Your task to perform on an android device: open app "Spotify: Music and Podcasts" (install if not already installed) and go to login screen Image 0: 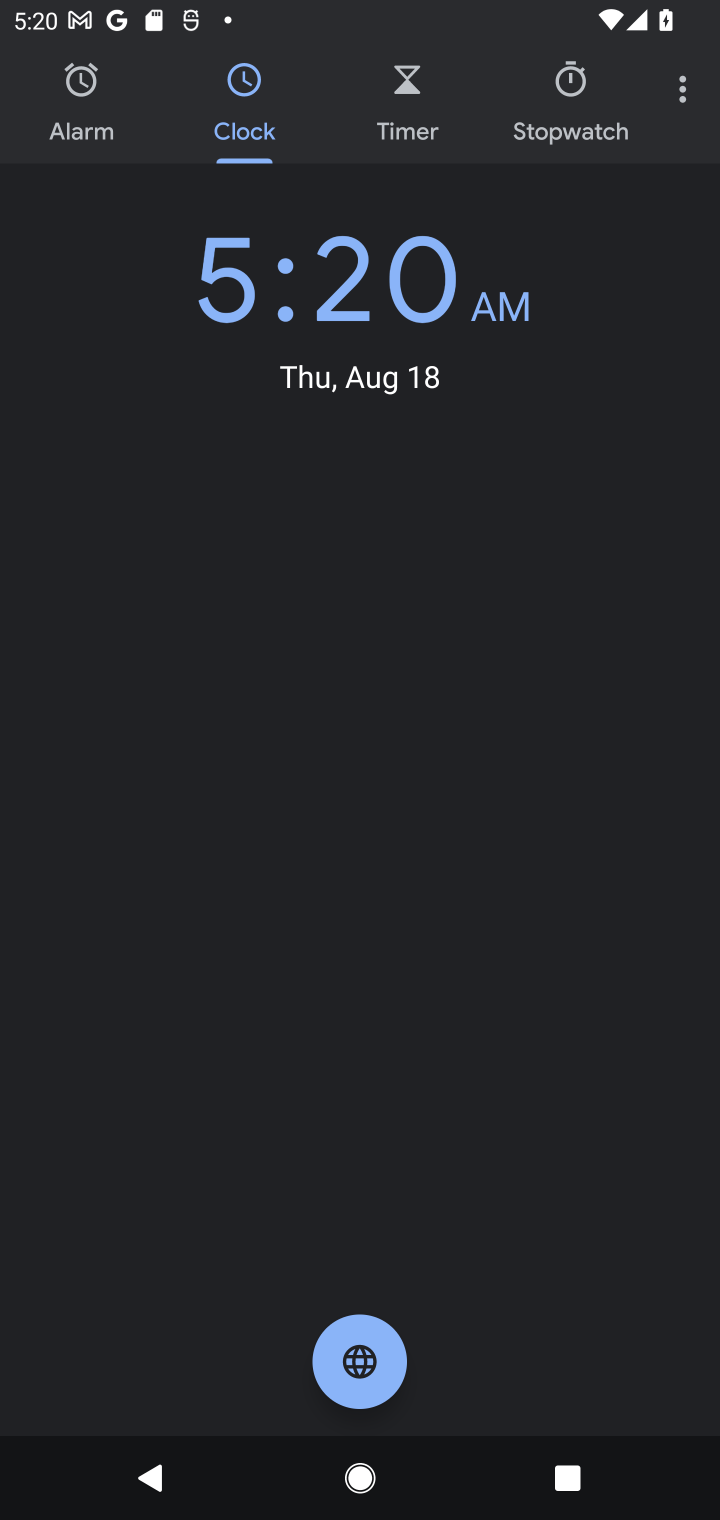
Step 0: press home button
Your task to perform on an android device: open app "Spotify: Music and Podcasts" (install if not already installed) and go to login screen Image 1: 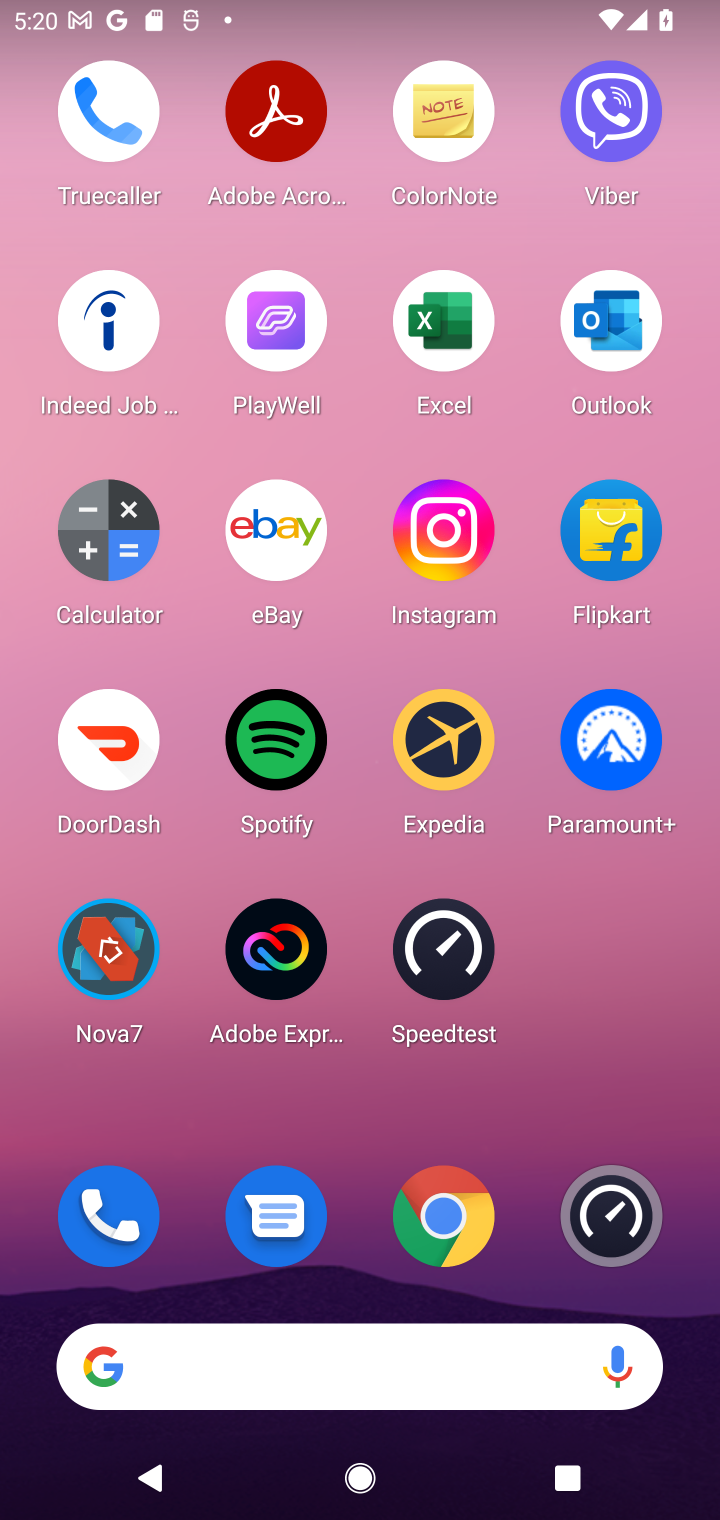
Step 1: click (278, 743)
Your task to perform on an android device: open app "Spotify: Music and Podcasts" (install if not already installed) and go to login screen Image 2: 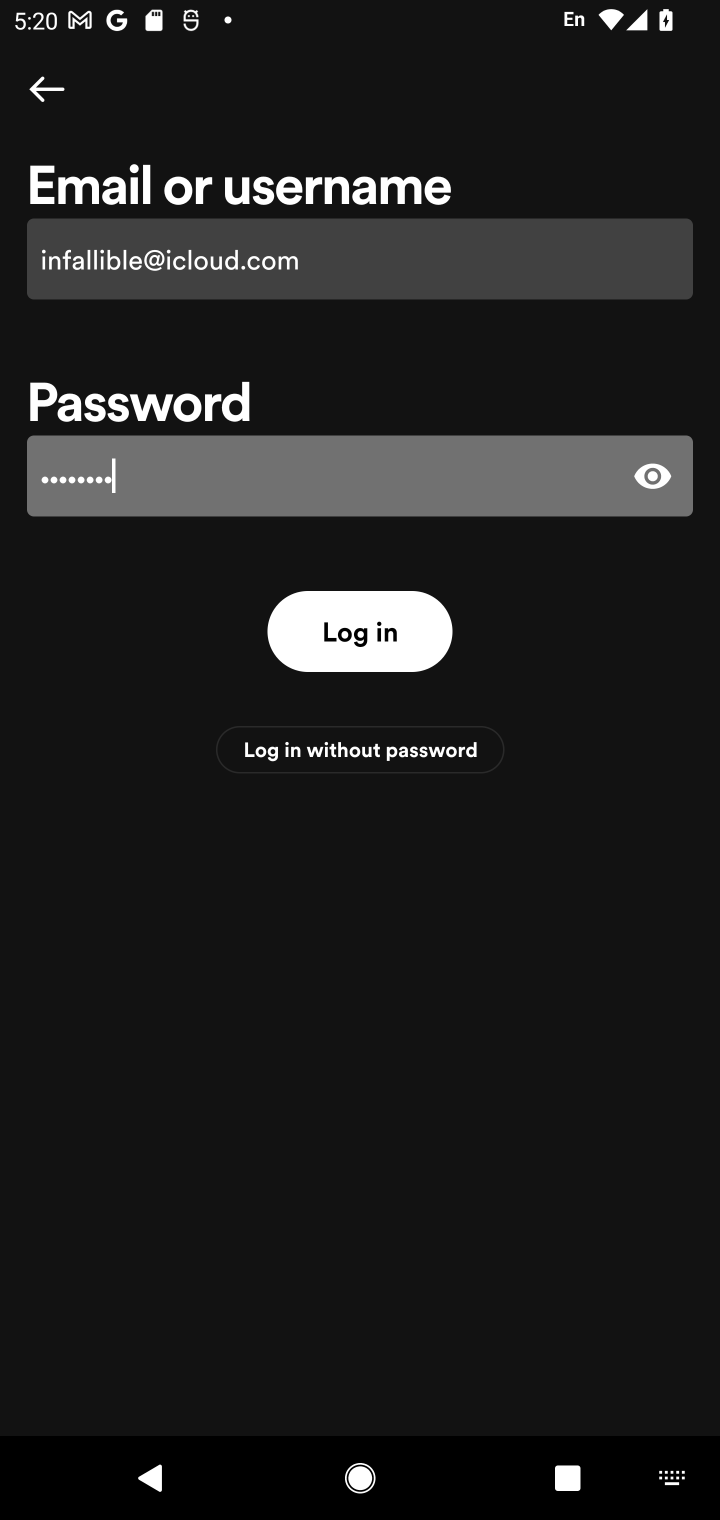
Step 2: task complete